Your task to perform on an android device: delete the emails in spam in the gmail app Image 0: 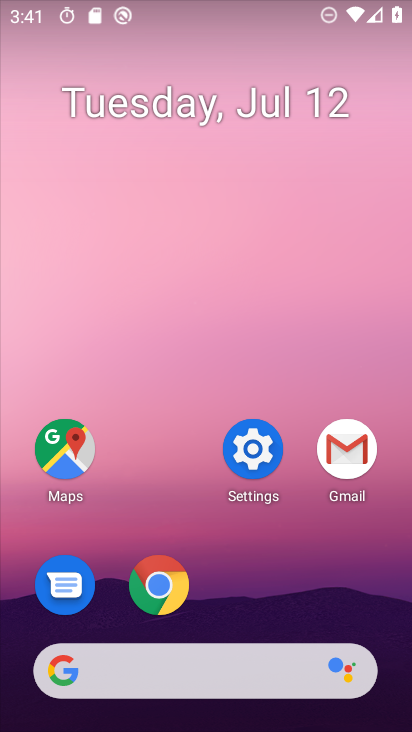
Step 0: click (358, 444)
Your task to perform on an android device: delete the emails in spam in the gmail app Image 1: 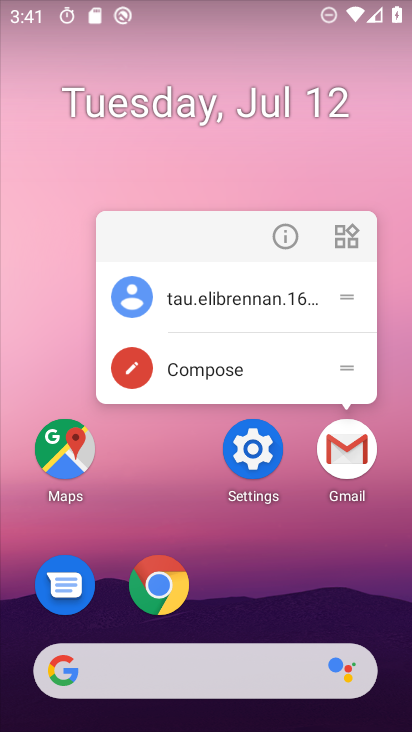
Step 1: click (350, 448)
Your task to perform on an android device: delete the emails in spam in the gmail app Image 2: 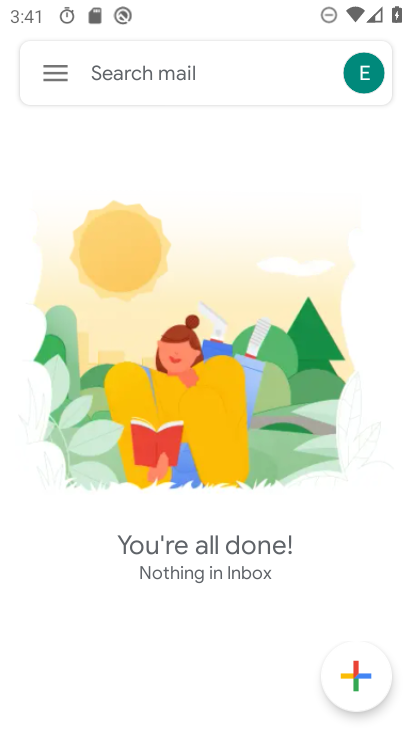
Step 2: task complete